Your task to perform on an android device: Go to display settings Image 0: 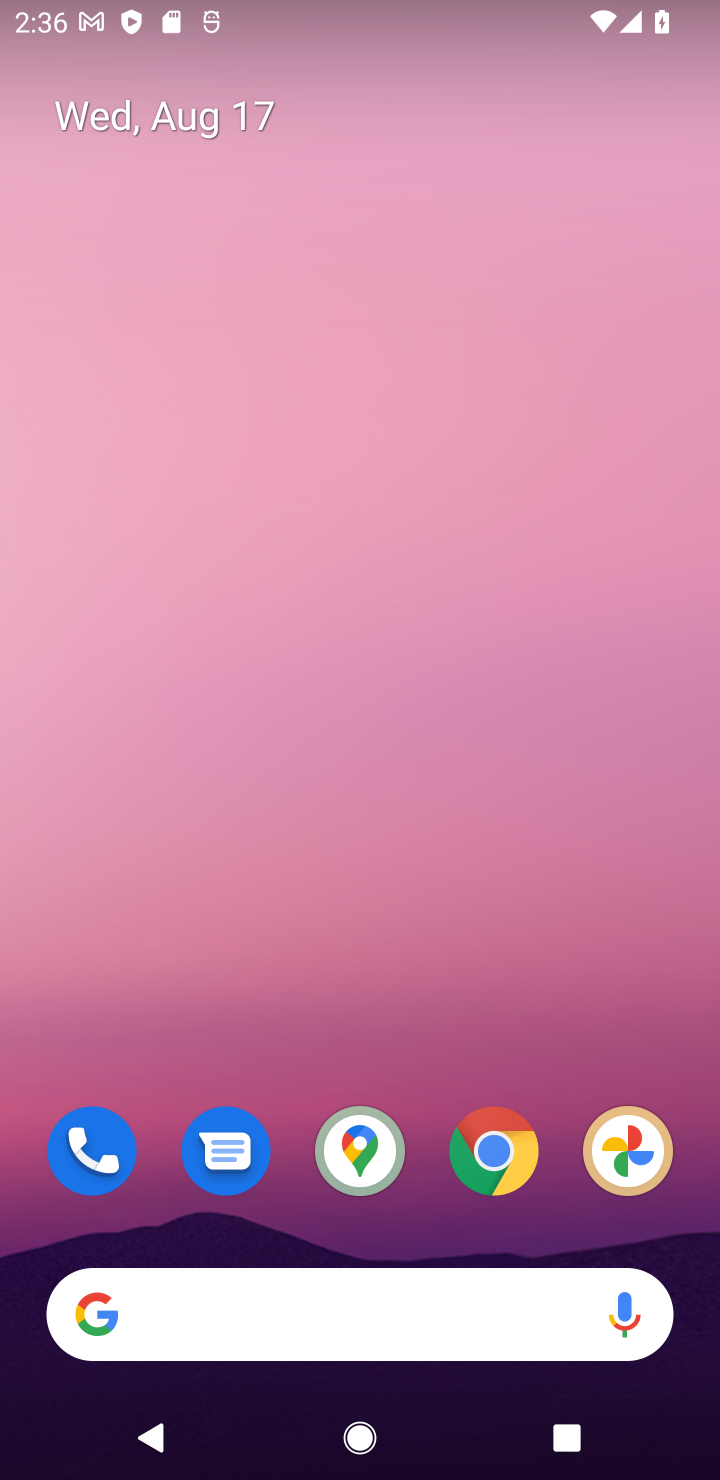
Step 0: drag from (168, 1085) to (155, 291)
Your task to perform on an android device: Go to display settings Image 1: 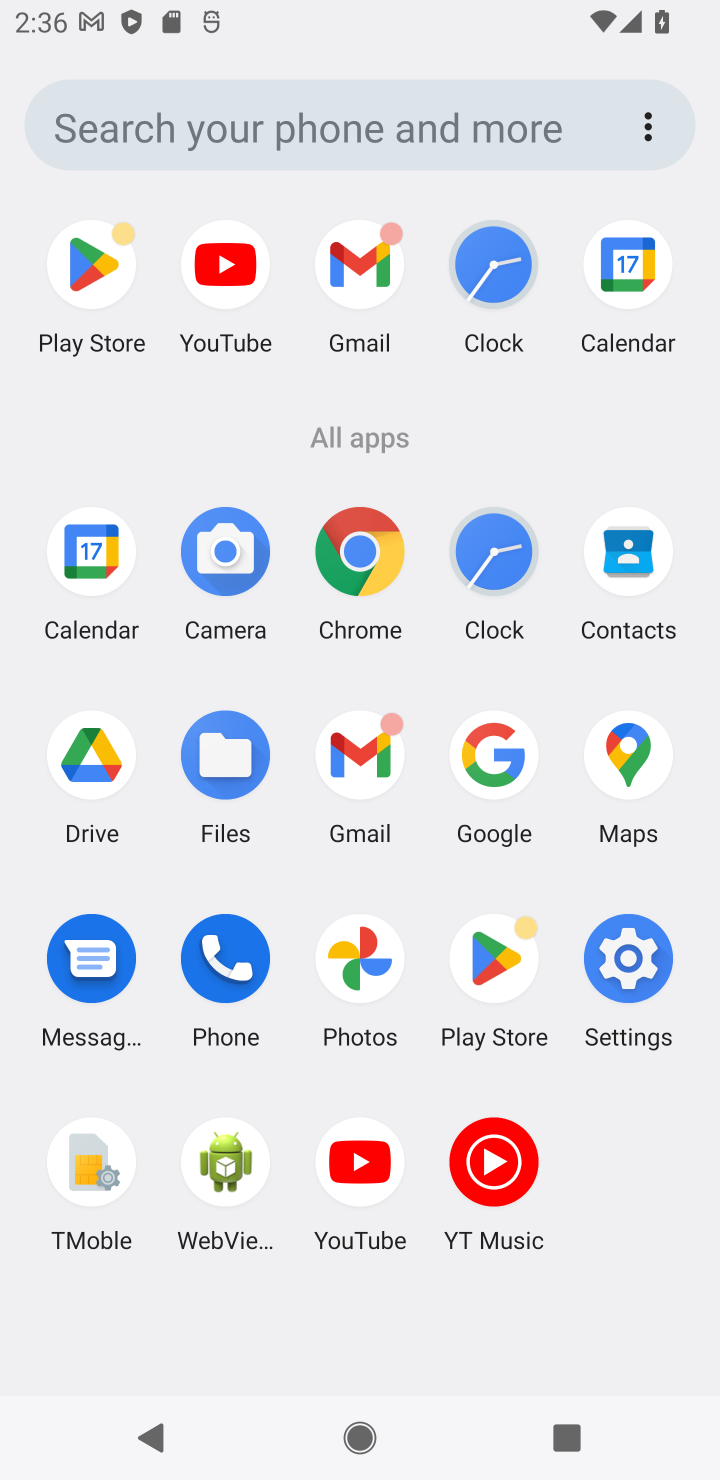
Step 1: click (616, 949)
Your task to perform on an android device: Go to display settings Image 2: 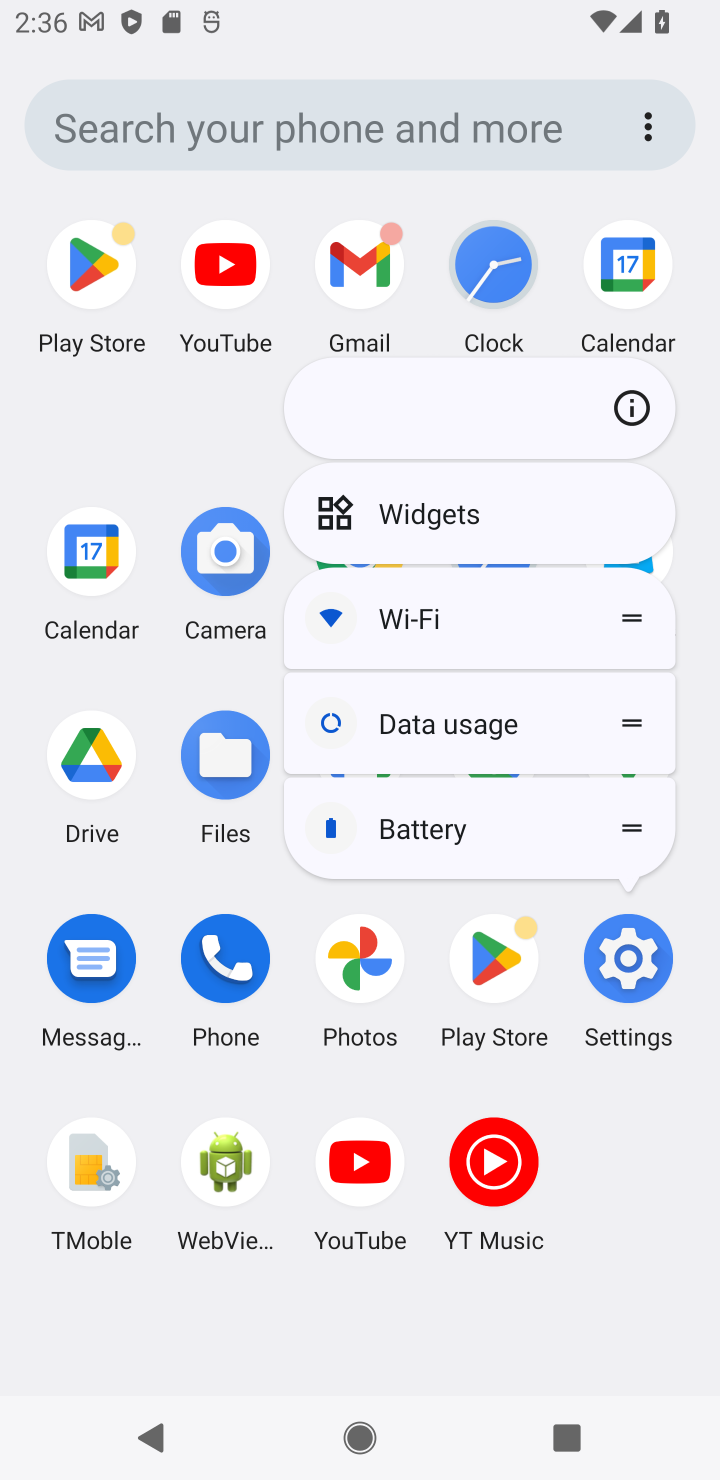
Step 2: click (619, 947)
Your task to perform on an android device: Go to display settings Image 3: 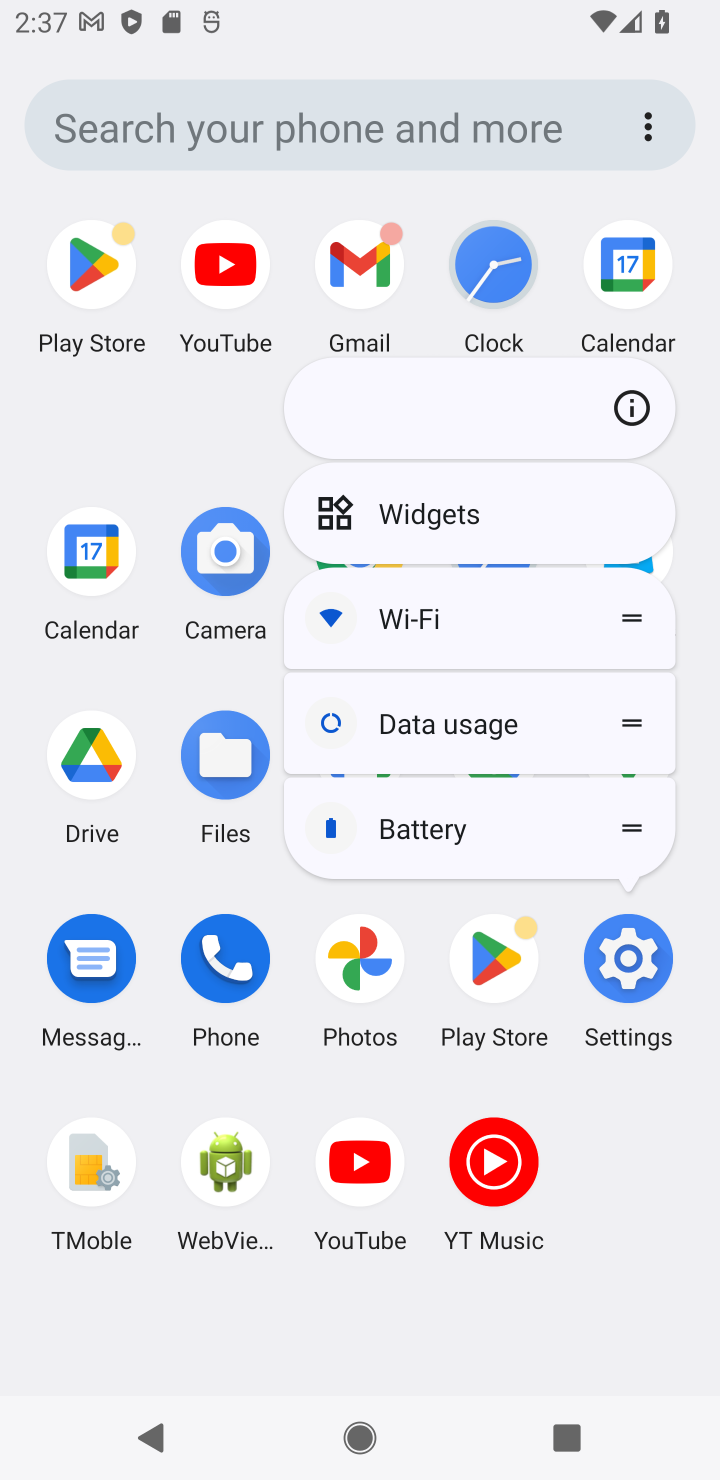
Step 3: click (650, 963)
Your task to perform on an android device: Go to display settings Image 4: 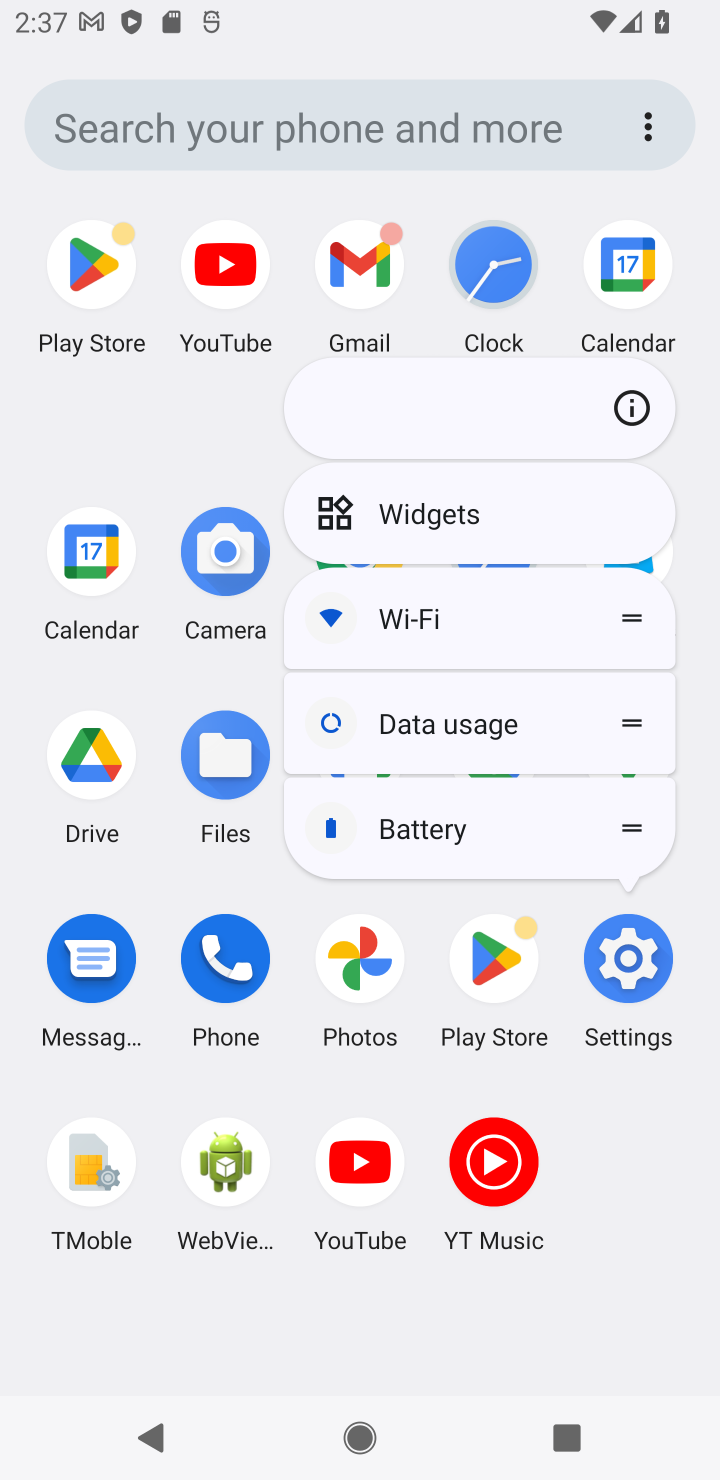
Step 4: click (641, 963)
Your task to perform on an android device: Go to display settings Image 5: 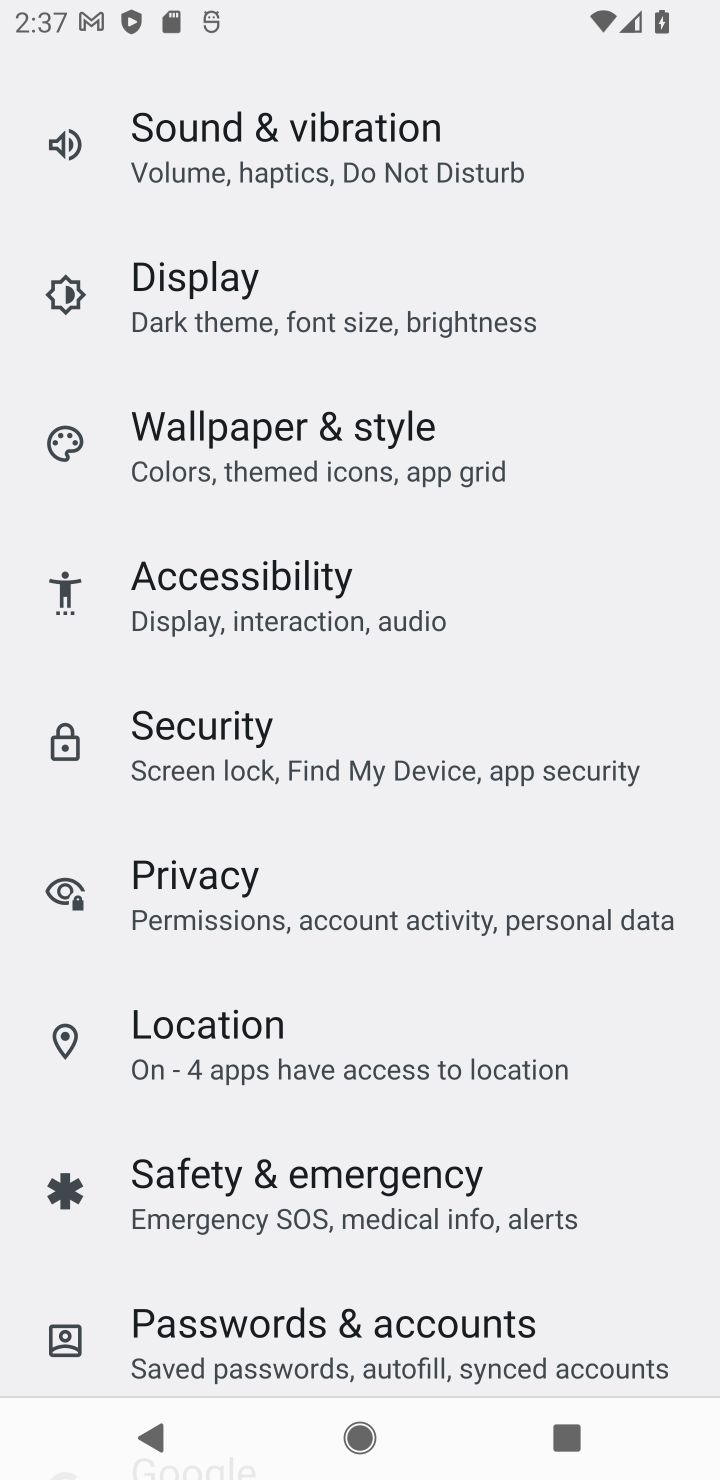
Step 5: click (204, 264)
Your task to perform on an android device: Go to display settings Image 6: 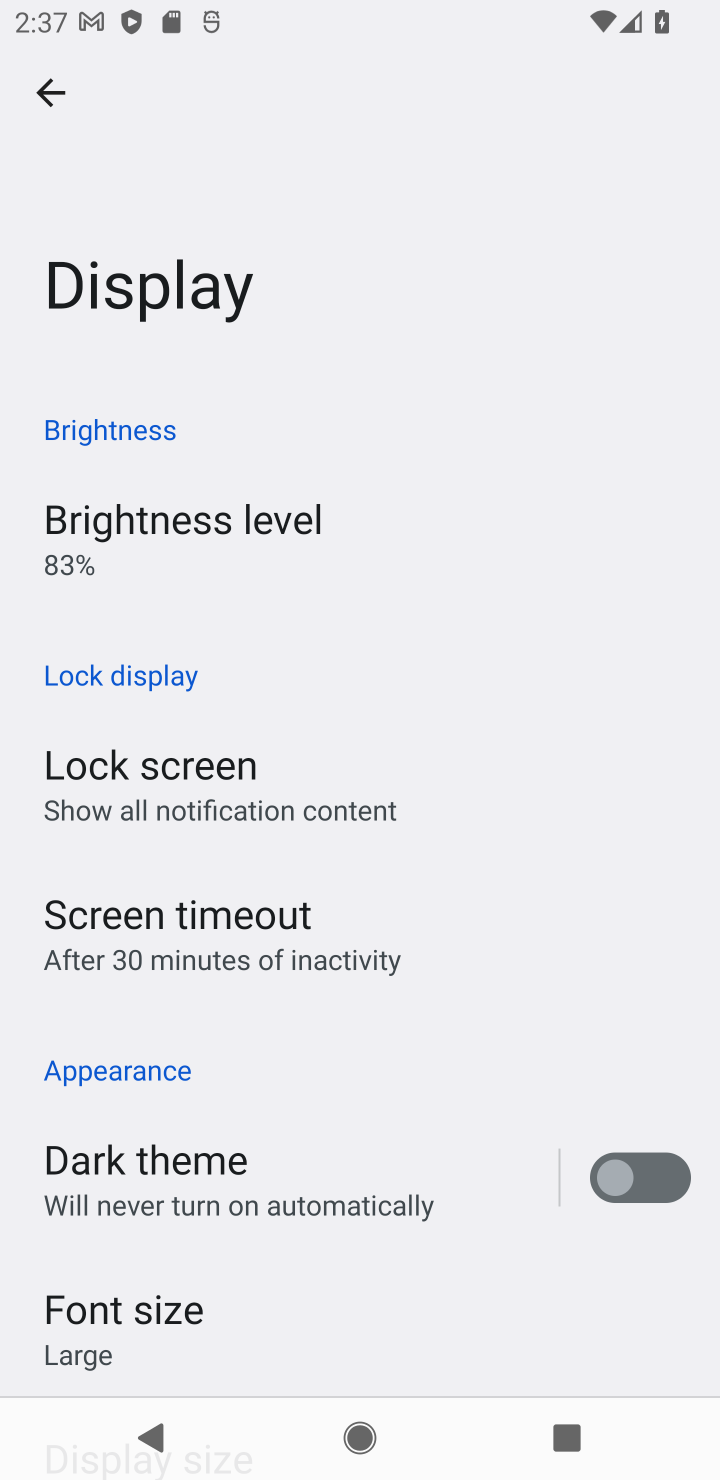
Step 6: task complete